Your task to perform on an android device: uninstall "PUBG MOBILE" Image 0: 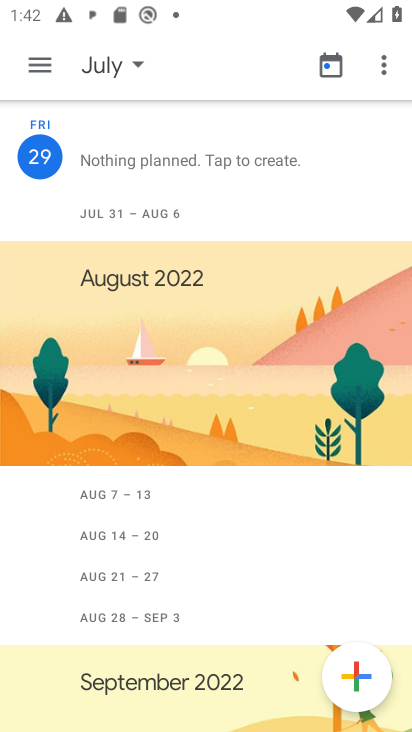
Step 0: press home button
Your task to perform on an android device: uninstall "PUBG MOBILE" Image 1: 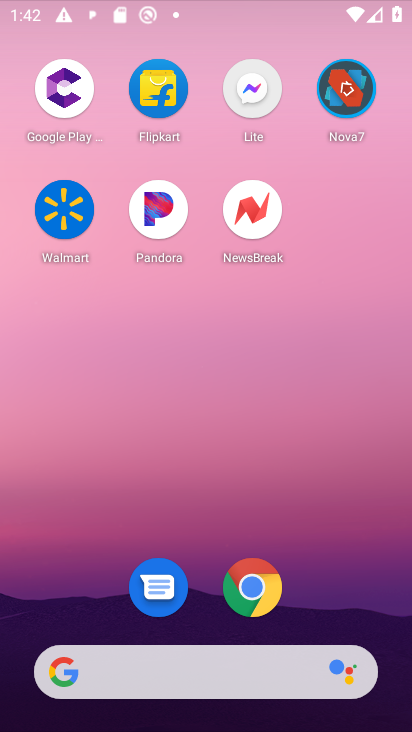
Step 1: drag from (169, 724) to (188, 6)
Your task to perform on an android device: uninstall "PUBG MOBILE" Image 2: 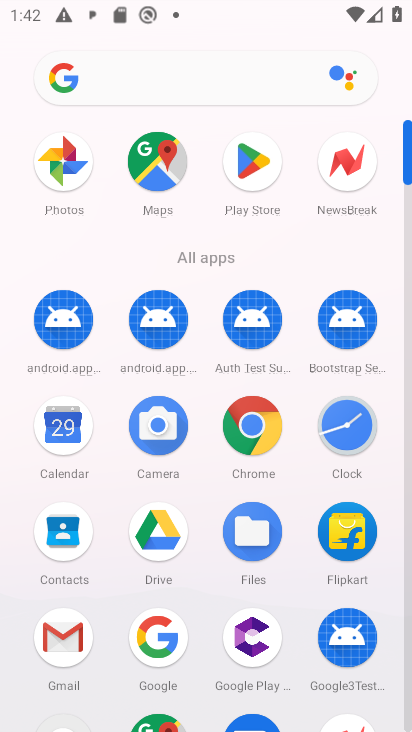
Step 2: click (262, 173)
Your task to perform on an android device: uninstall "PUBG MOBILE" Image 3: 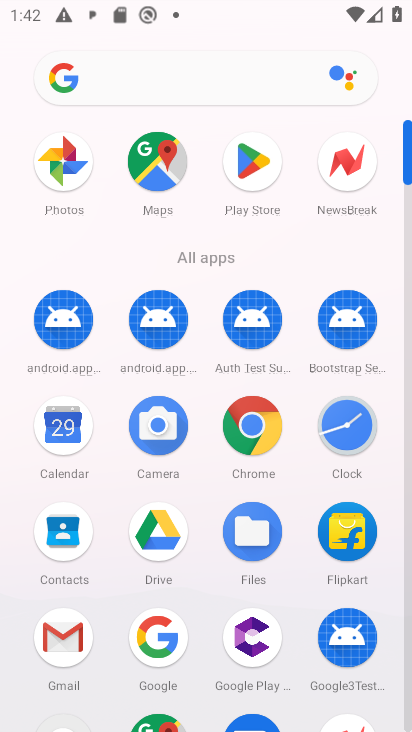
Step 3: click (262, 173)
Your task to perform on an android device: uninstall "PUBG MOBILE" Image 4: 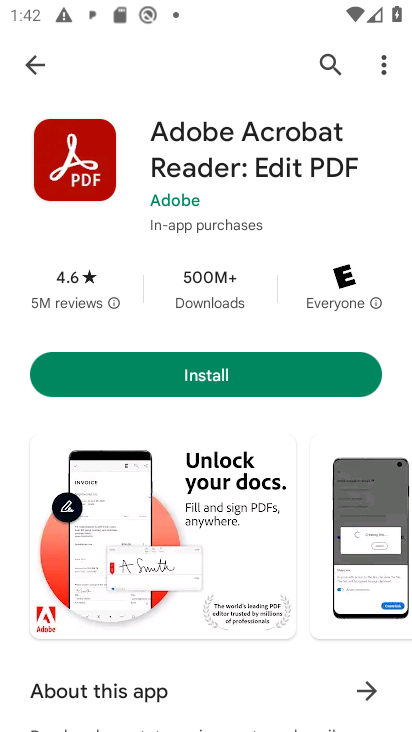
Step 4: click (329, 58)
Your task to perform on an android device: uninstall "PUBG MOBILE" Image 5: 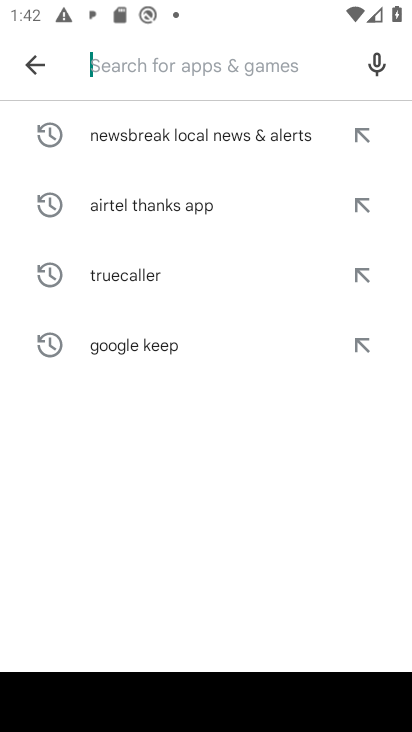
Step 5: type "pUBG MOBILE""
Your task to perform on an android device: uninstall "PUBG MOBILE" Image 6: 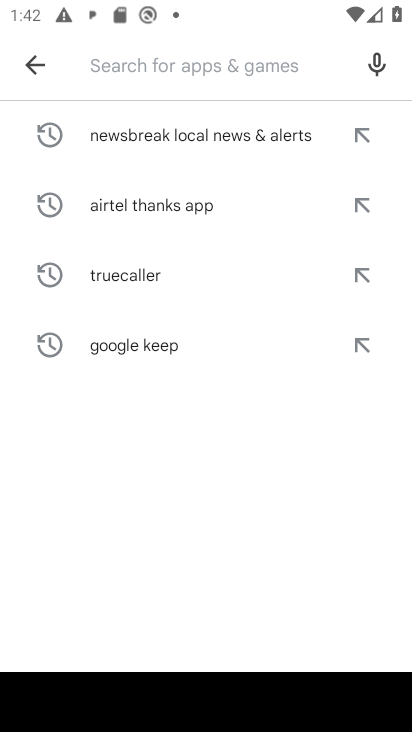
Step 6: type "PUBG MOBILE""
Your task to perform on an android device: uninstall "PUBG MOBILE" Image 7: 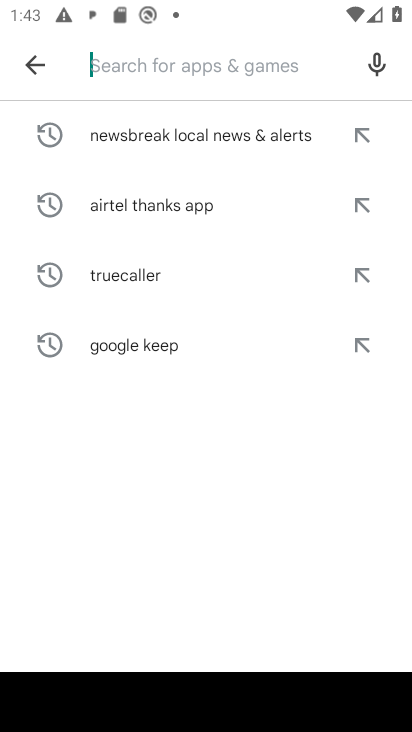
Step 7: press enter
Your task to perform on an android device: uninstall "PUBG MOBILE" Image 8: 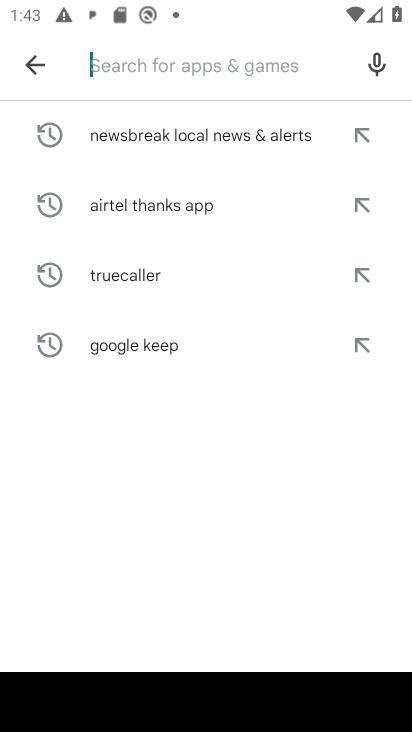
Step 8: type "pubg mobile "
Your task to perform on an android device: uninstall "PUBG MOBILE" Image 9: 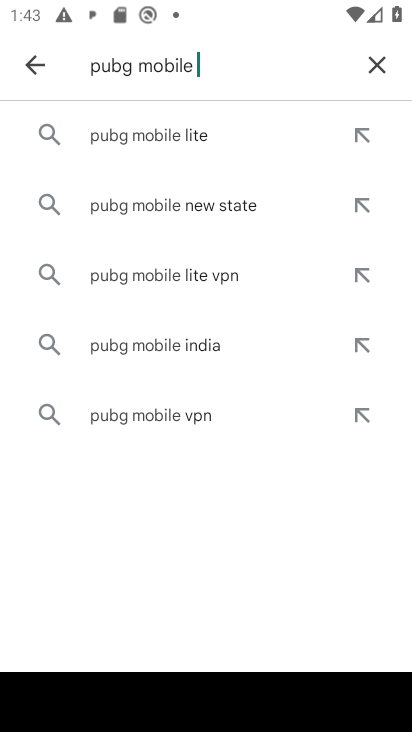
Step 9: press enter
Your task to perform on an android device: uninstall "PUBG MOBILE" Image 10: 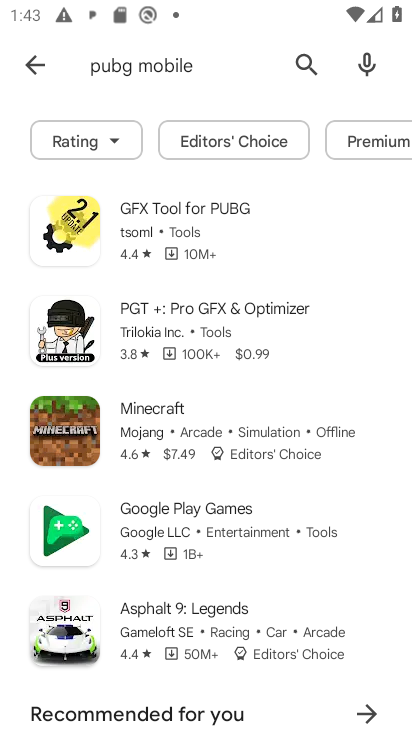
Step 10: task complete